Your task to perform on an android device: Is it going to rain tomorrow? Image 0: 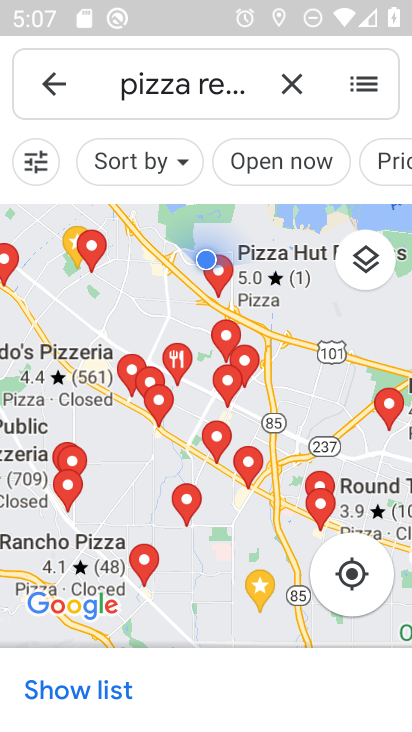
Step 0: press home button
Your task to perform on an android device: Is it going to rain tomorrow? Image 1: 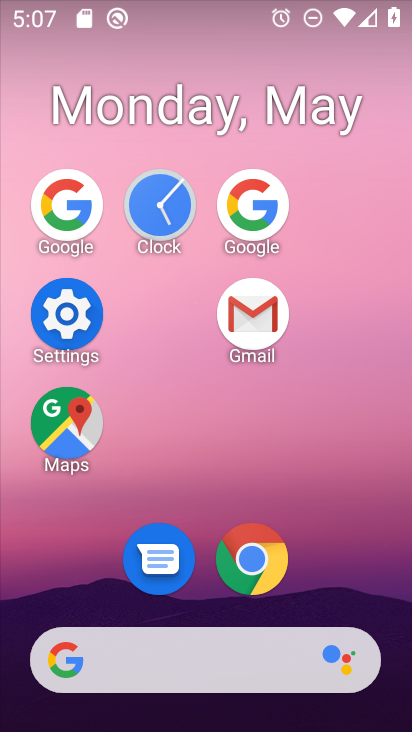
Step 1: click (230, 201)
Your task to perform on an android device: Is it going to rain tomorrow? Image 2: 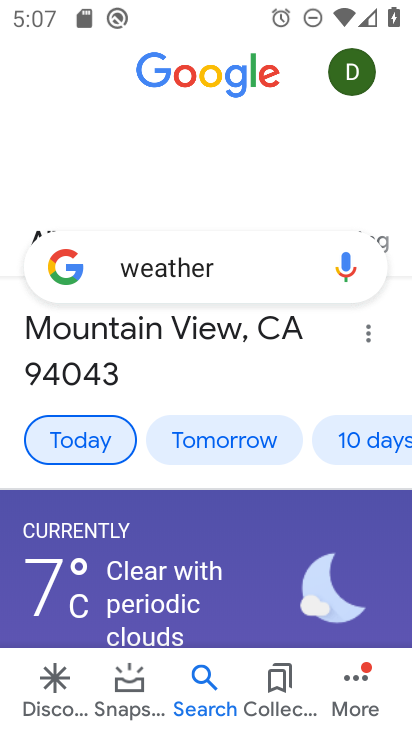
Step 2: task complete